Your task to perform on an android device: Open Android settings Image 0: 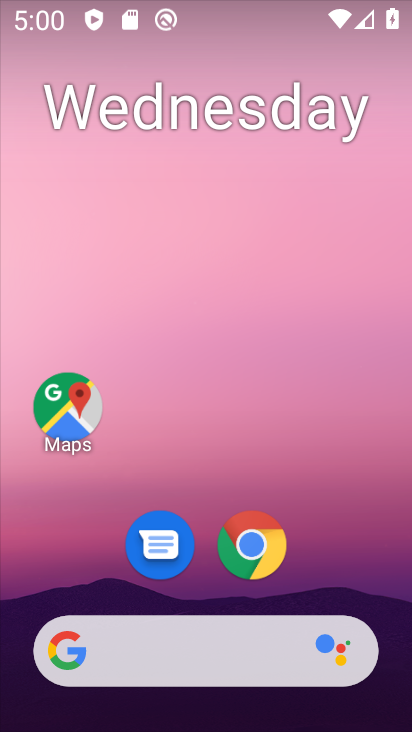
Step 0: drag from (287, 286) to (306, 49)
Your task to perform on an android device: Open Android settings Image 1: 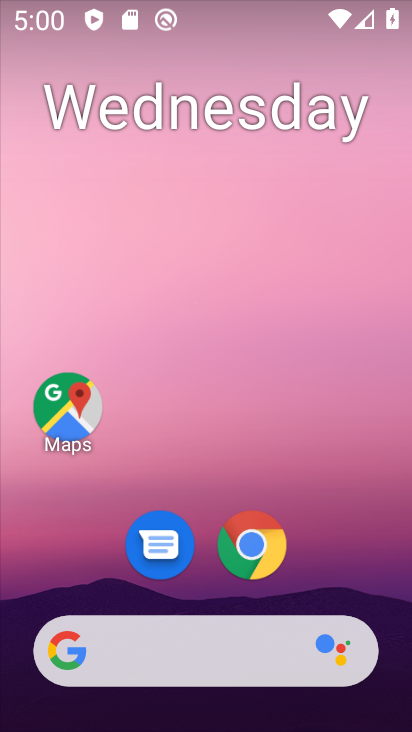
Step 1: drag from (314, 448) to (316, 68)
Your task to perform on an android device: Open Android settings Image 2: 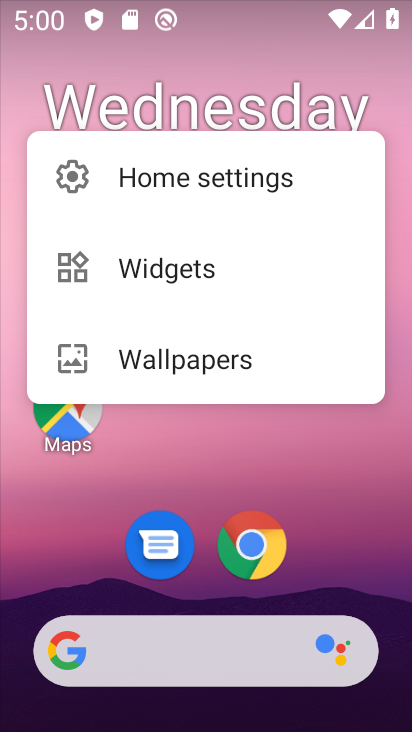
Step 2: drag from (292, 539) to (323, 41)
Your task to perform on an android device: Open Android settings Image 3: 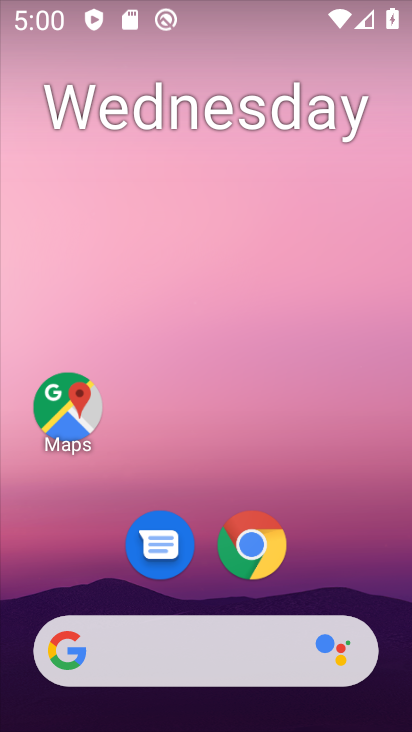
Step 3: drag from (316, 380) to (314, 86)
Your task to perform on an android device: Open Android settings Image 4: 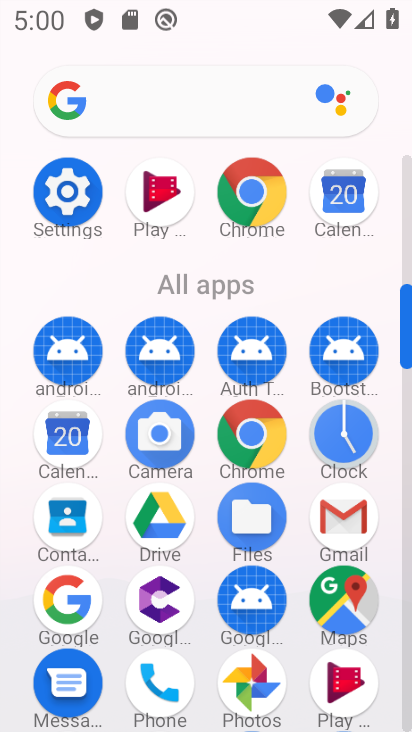
Step 4: click (75, 201)
Your task to perform on an android device: Open Android settings Image 5: 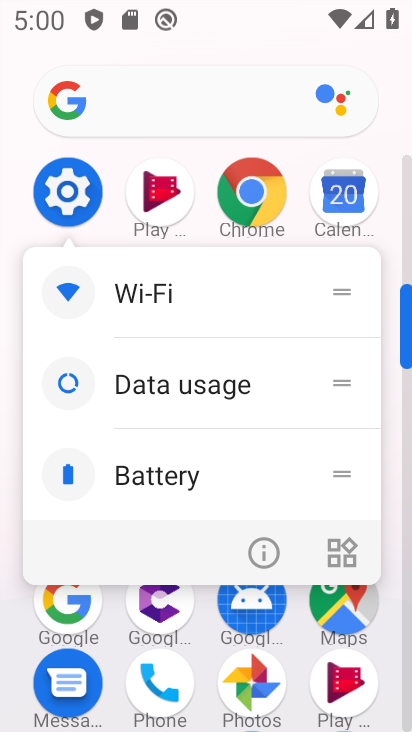
Step 5: click (67, 185)
Your task to perform on an android device: Open Android settings Image 6: 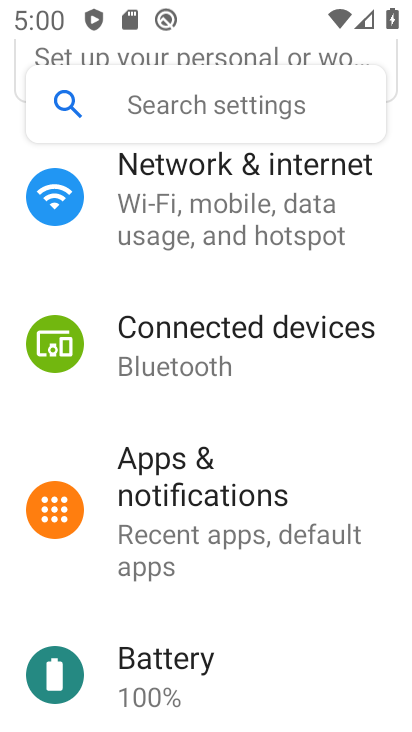
Step 6: task complete